Your task to perform on an android device: turn vacation reply on in the gmail app Image 0: 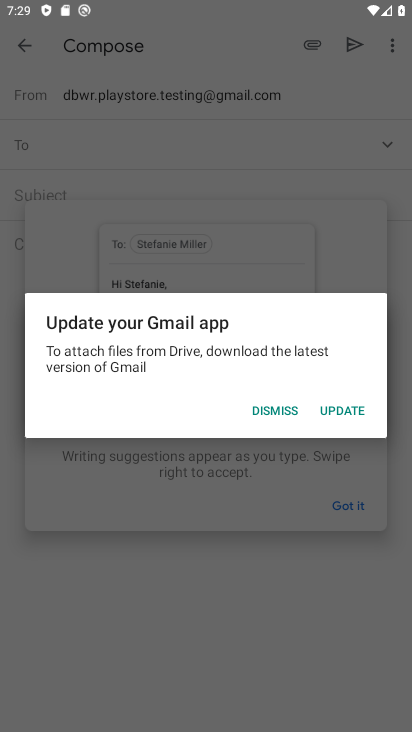
Step 0: press home button
Your task to perform on an android device: turn vacation reply on in the gmail app Image 1: 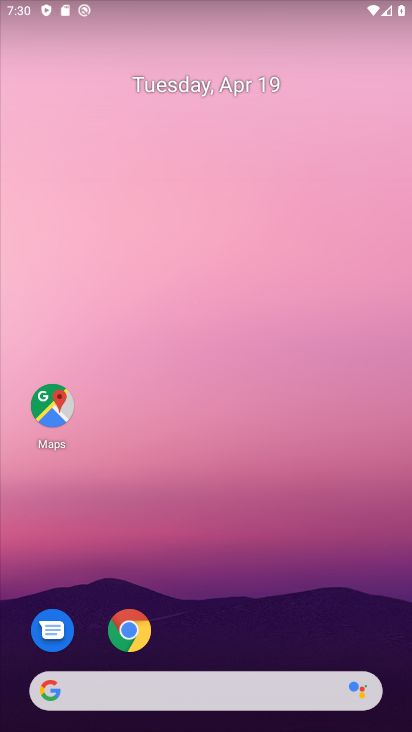
Step 1: drag from (208, 590) to (191, 52)
Your task to perform on an android device: turn vacation reply on in the gmail app Image 2: 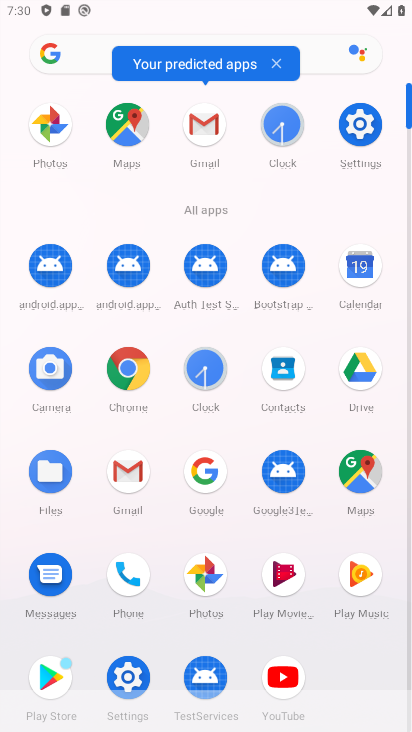
Step 2: click (125, 481)
Your task to perform on an android device: turn vacation reply on in the gmail app Image 3: 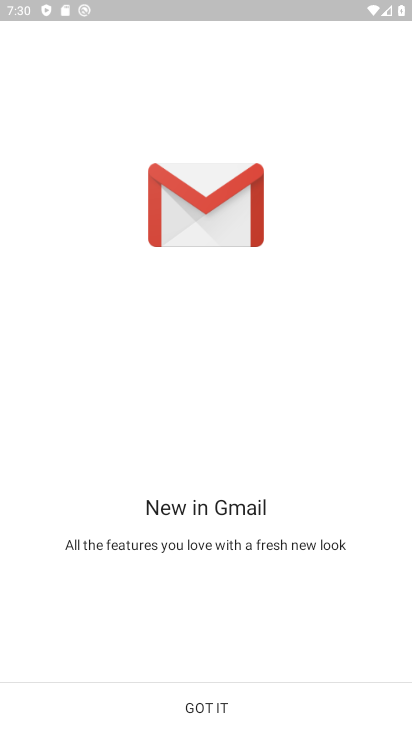
Step 3: click (246, 694)
Your task to perform on an android device: turn vacation reply on in the gmail app Image 4: 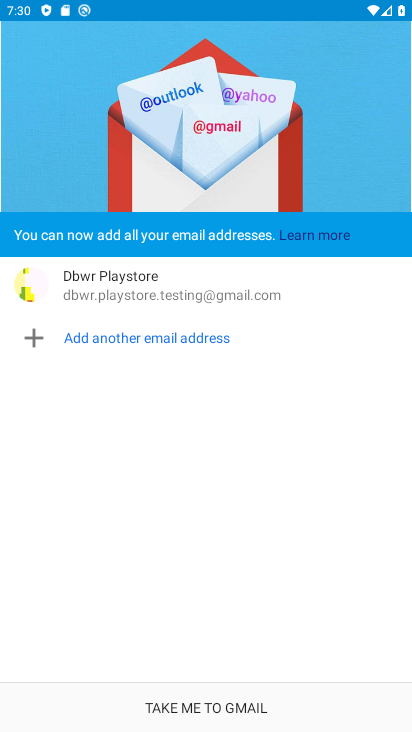
Step 4: click (248, 699)
Your task to perform on an android device: turn vacation reply on in the gmail app Image 5: 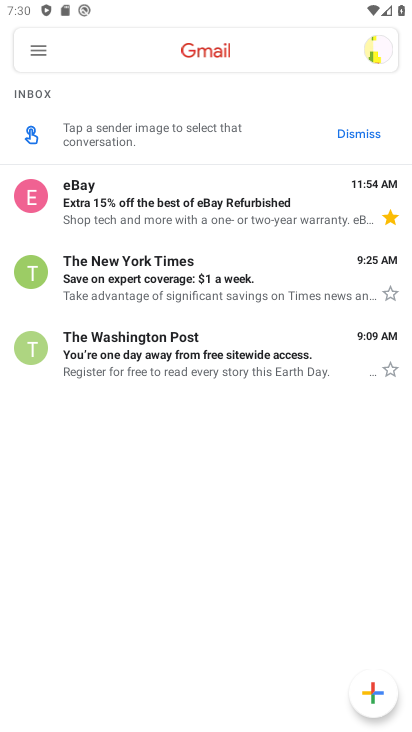
Step 5: click (32, 44)
Your task to perform on an android device: turn vacation reply on in the gmail app Image 6: 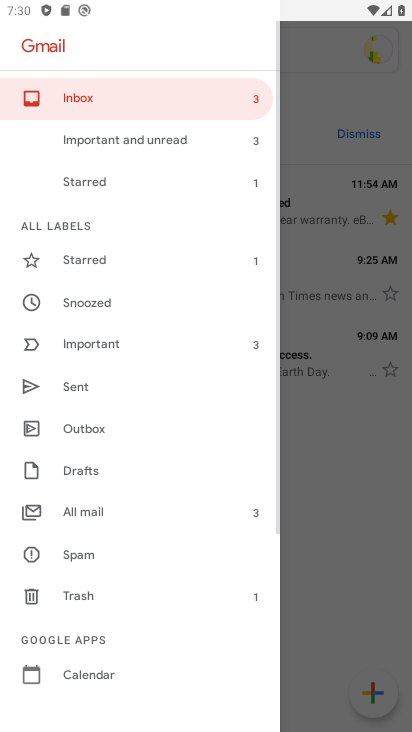
Step 6: drag from (98, 614) to (101, 108)
Your task to perform on an android device: turn vacation reply on in the gmail app Image 7: 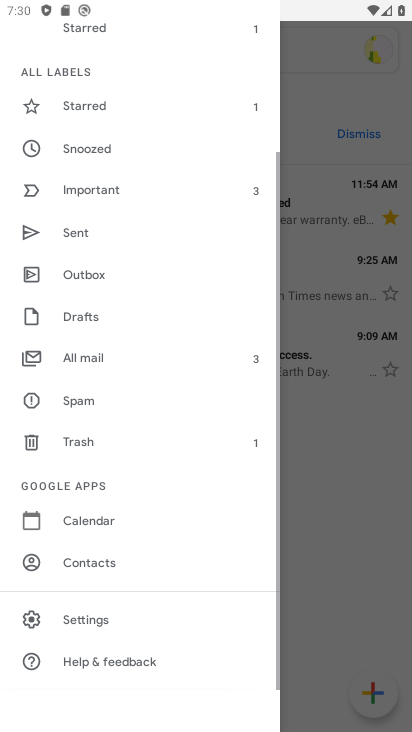
Step 7: click (80, 625)
Your task to perform on an android device: turn vacation reply on in the gmail app Image 8: 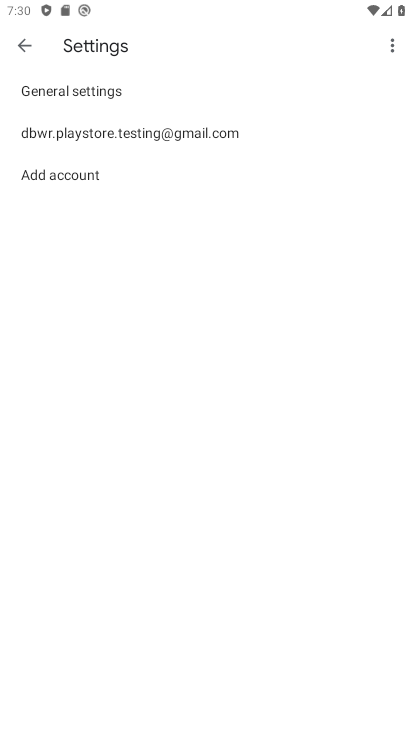
Step 8: click (67, 121)
Your task to perform on an android device: turn vacation reply on in the gmail app Image 9: 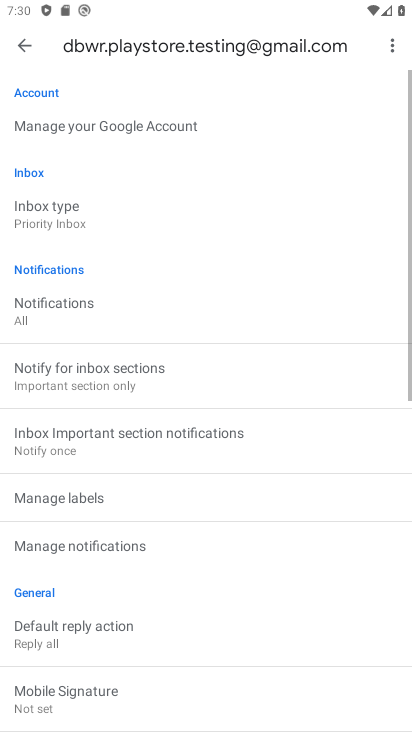
Step 9: drag from (133, 589) to (100, 56)
Your task to perform on an android device: turn vacation reply on in the gmail app Image 10: 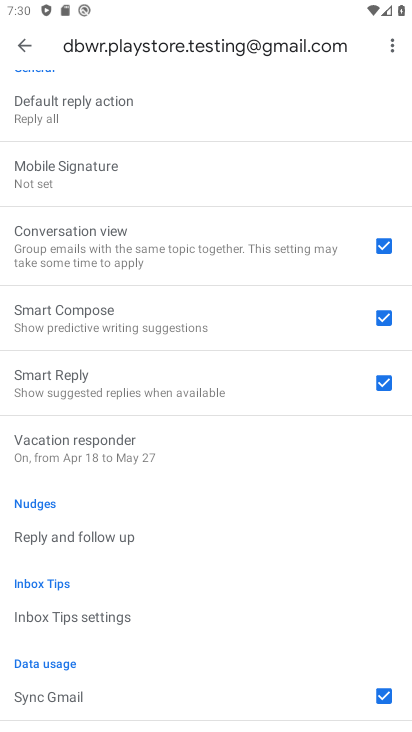
Step 10: click (118, 463)
Your task to perform on an android device: turn vacation reply on in the gmail app Image 11: 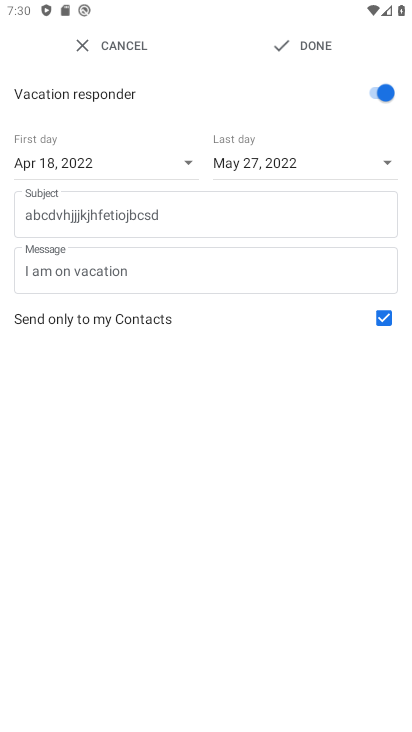
Step 11: click (308, 34)
Your task to perform on an android device: turn vacation reply on in the gmail app Image 12: 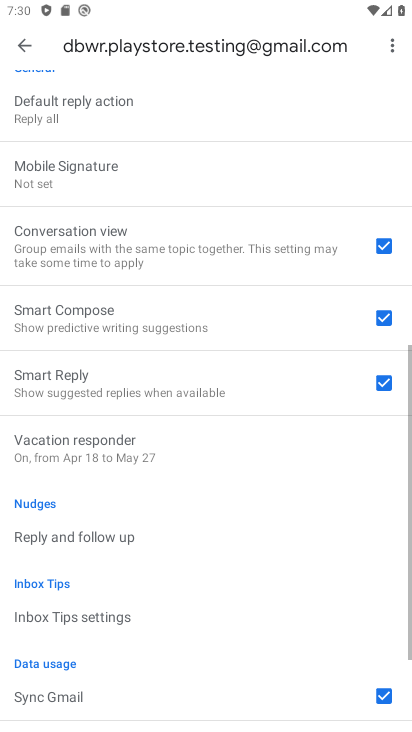
Step 12: task complete